Your task to perform on an android device: Open display settings Image 0: 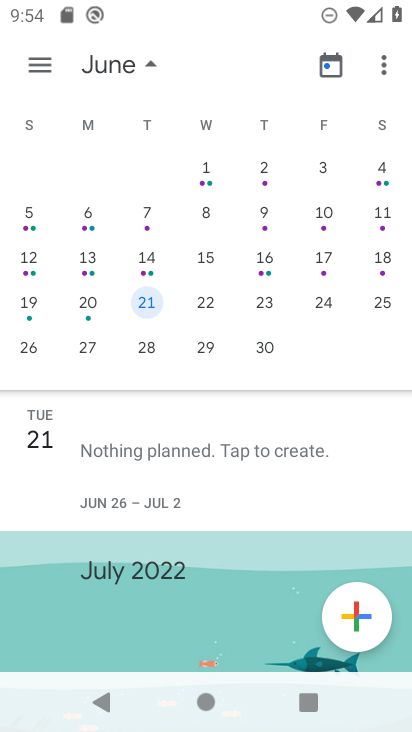
Step 0: press home button
Your task to perform on an android device: Open display settings Image 1: 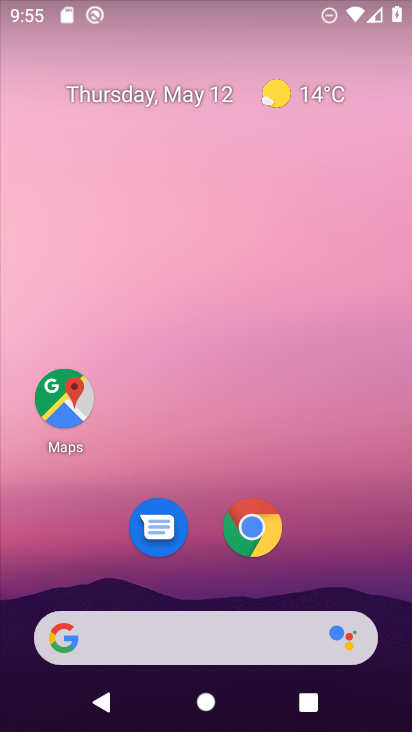
Step 1: drag from (333, 589) to (324, 113)
Your task to perform on an android device: Open display settings Image 2: 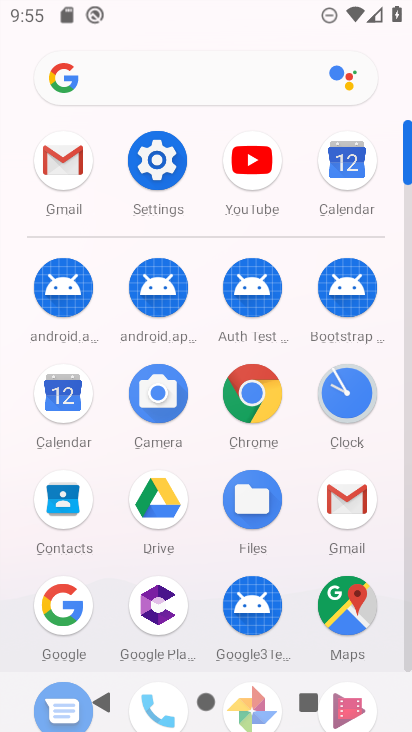
Step 2: click (153, 179)
Your task to perform on an android device: Open display settings Image 3: 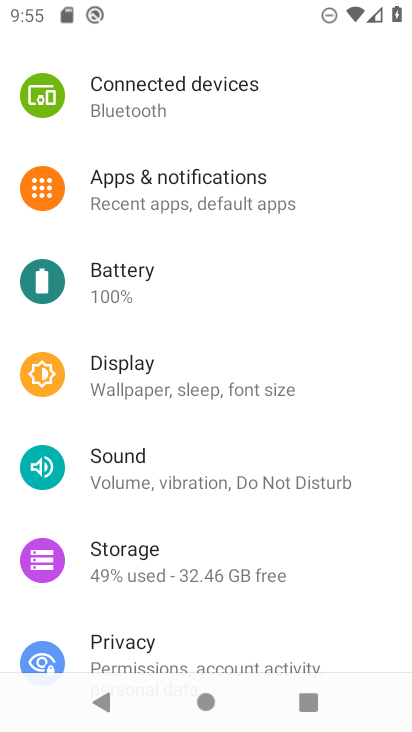
Step 3: click (208, 366)
Your task to perform on an android device: Open display settings Image 4: 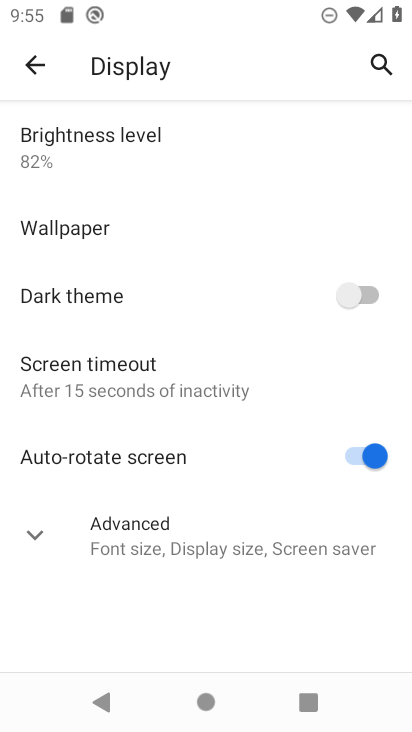
Step 4: task complete